Your task to perform on an android device: read, delete, or share a saved page in the chrome app Image 0: 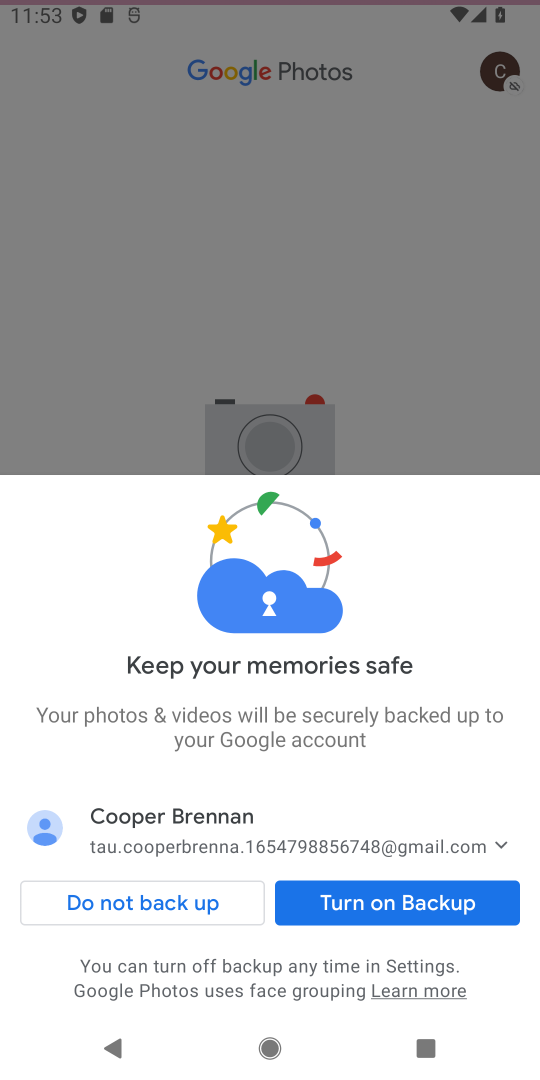
Step 0: press home button
Your task to perform on an android device: read, delete, or share a saved page in the chrome app Image 1: 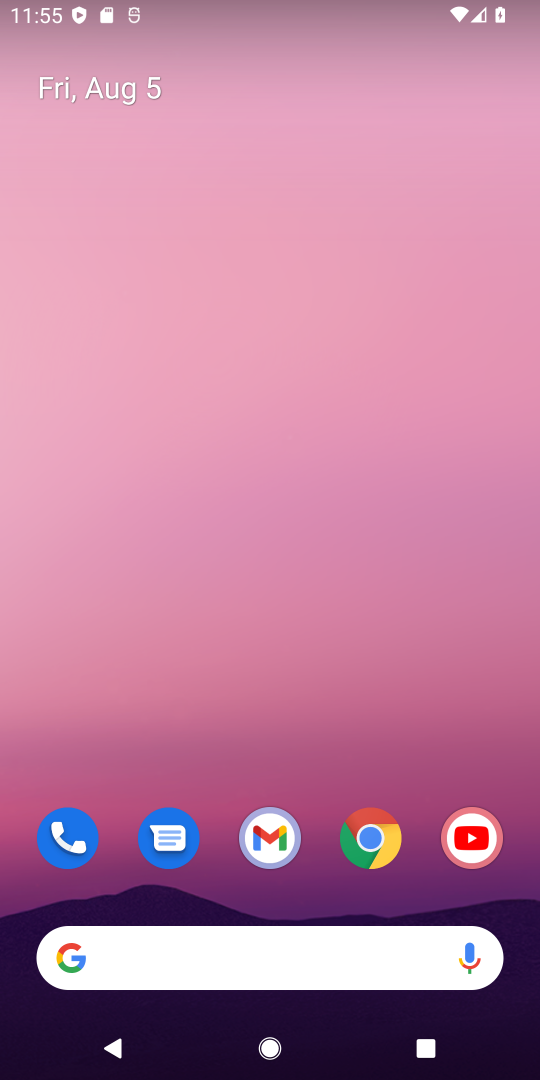
Step 1: drag from (339, 903) to (318, 110)
Your task to perform on an android device: read, delete, or share a saved page in the chrome app Image 2: 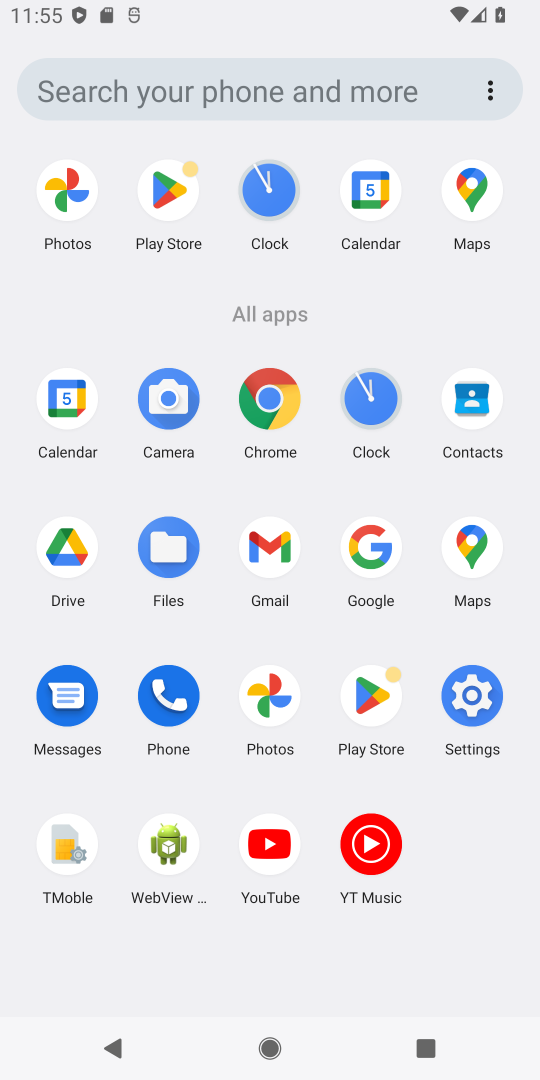
Step 2: click (266, 386)
Your task to perform on an android device: read, delete, or share a saved page in the chrome app Image 3: 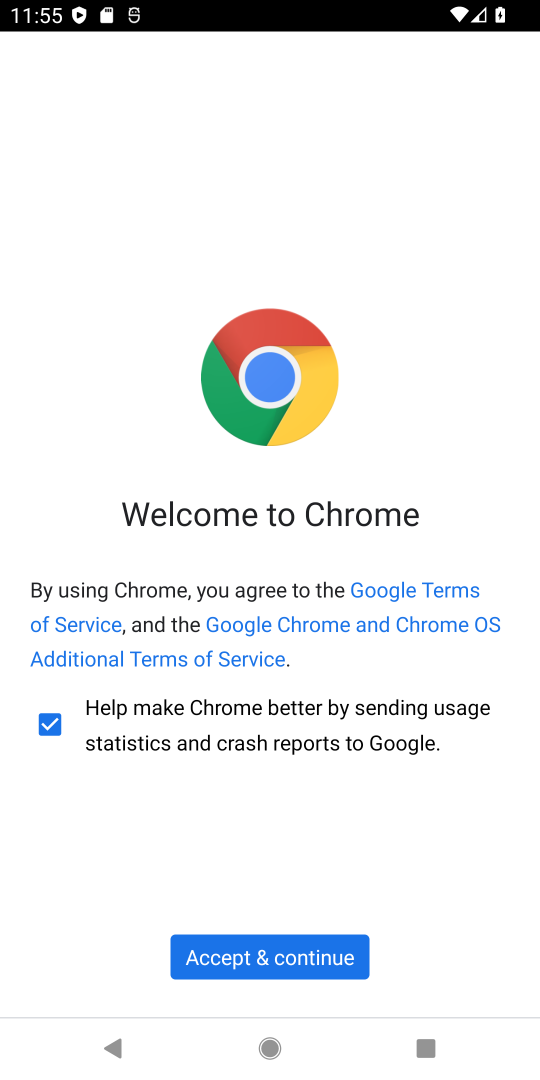
Step 3: click (268, 961)
Your task to perform on an android device: read, delete, or share a saved page in the chrome app Image 4: 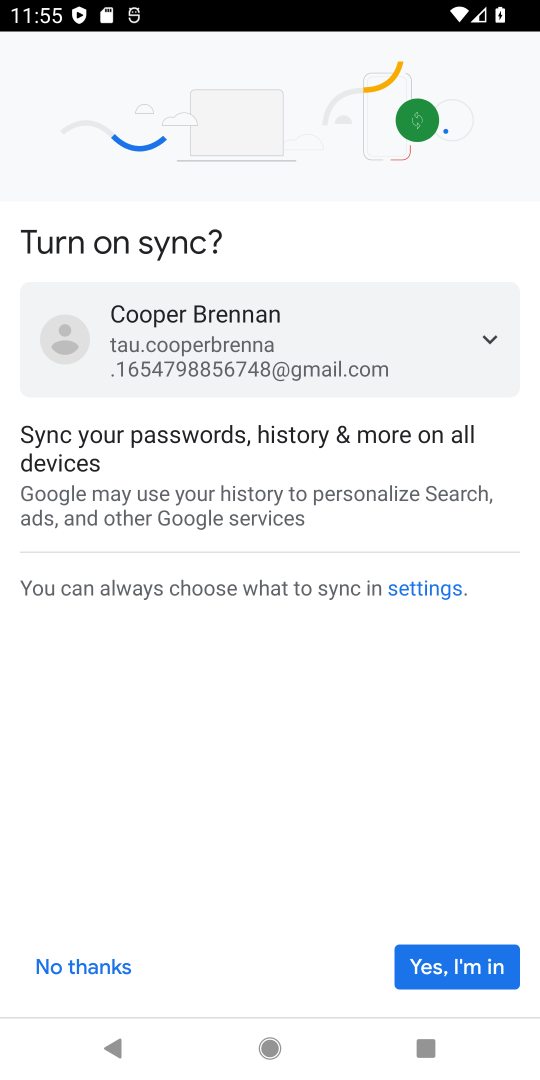
Step 4: click (450, 961)
Your task to perform on an android device: read, delete, or share a saved page in the chrome app Image 5: 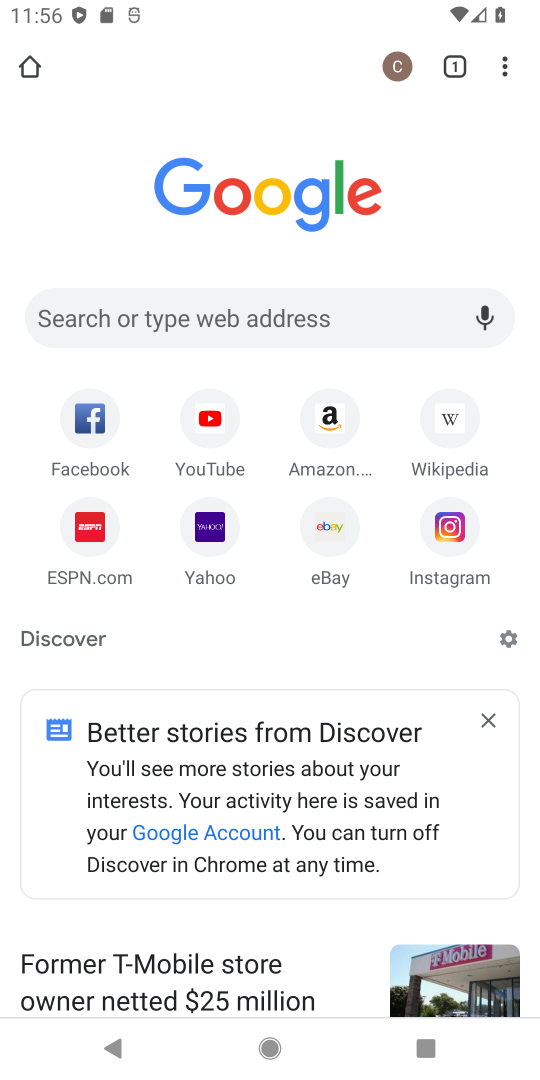
Step 5: drag from (507, 59) to (346, 320)
Your task to perform on an android device: read, delete, or share a saved page in the chrome app Image 6: 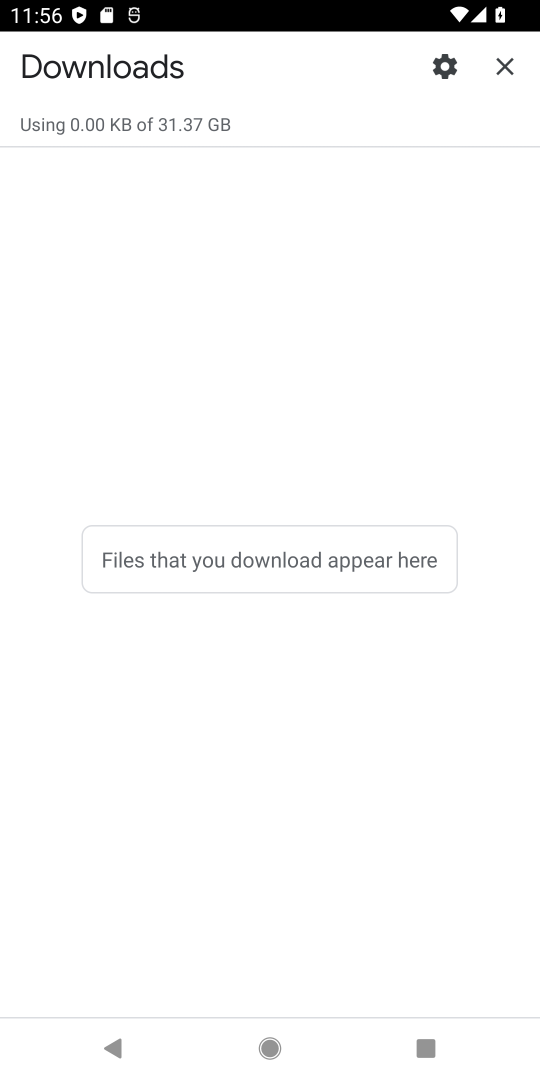
Step 6: click (187, 63)
Your task to perform on an android device: read, delete, or share a saved page in the chrome app Image 7: 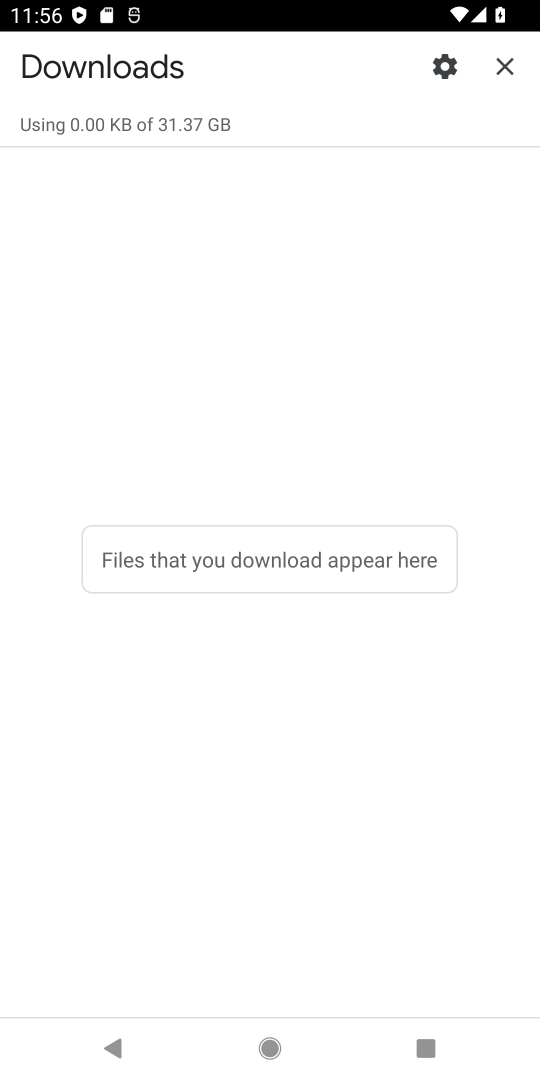
Step 7: task complete